Your task to perform on an android device: Find coffee shops on Maps Image 0: 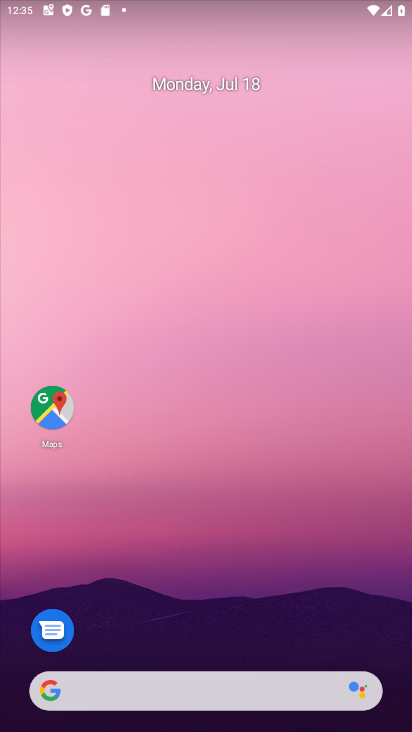
Step 0: drag from (256, 665) to (344, 26)
Your task to perform on an android device: Find coffee shops on Maps Image 1: 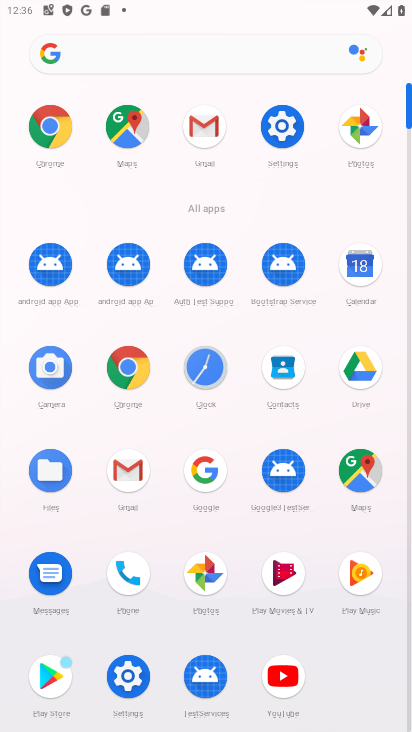
Step 1: click (364, 480)
Your task to perform on an android device: Find coffee shops on Maps Image 2: 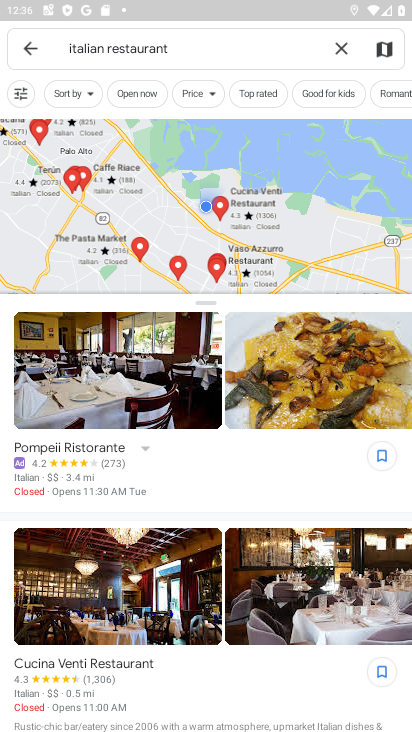
Step 2: click (335, 46)
Your task to perform on an android device: Find coffee shops on Maps Image 3: 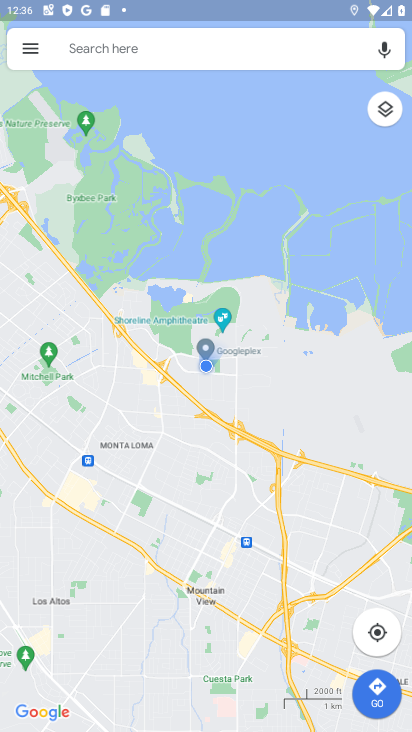
Step 3: click (192, 46)
Your task to perform on an android device: Find coffee shops on Maps Image 4: 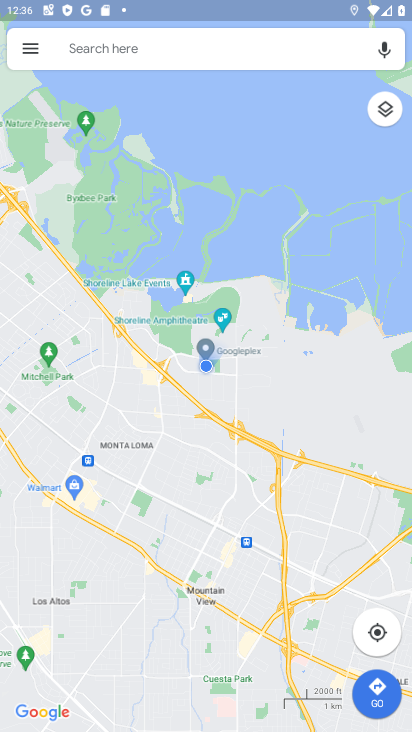
Step 4: click (192, 46)
Your task to perform on an android device: Find coffee shops on Maps Image 5: 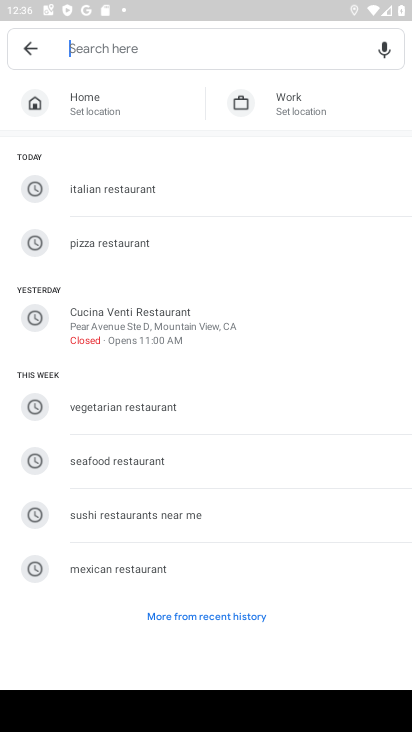
Step 5: type "coffee shops"
Your task to perform on an android device: Find coffee shops on Maps Image 6: 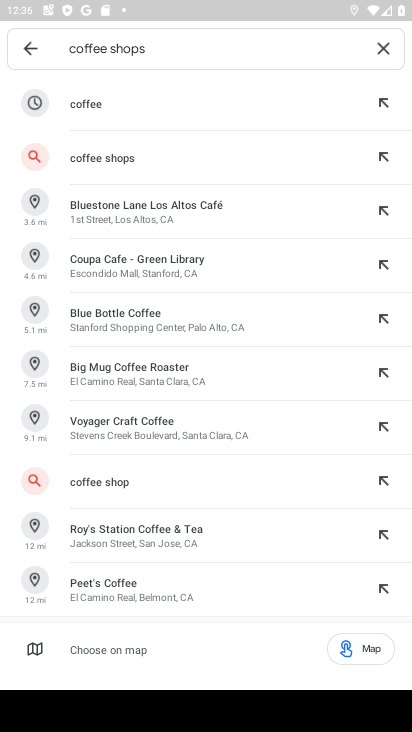
Step 6: click (125, 176)
Your task to perform on an android device: Find coffee shops on Maps Image 7: 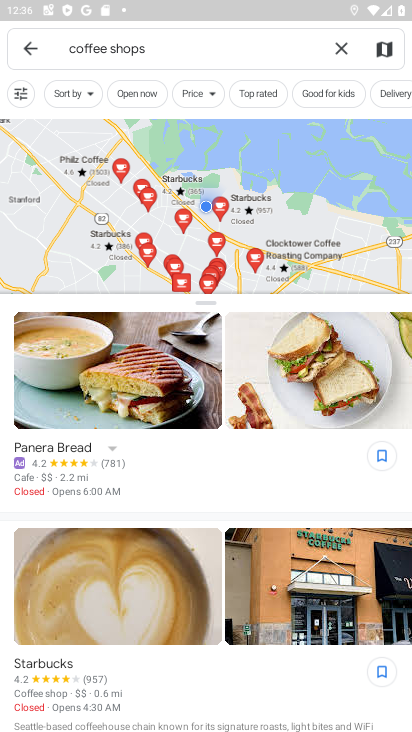
Step 7: task complete